Your task to perform on an android device: Go to display settings Image 0: 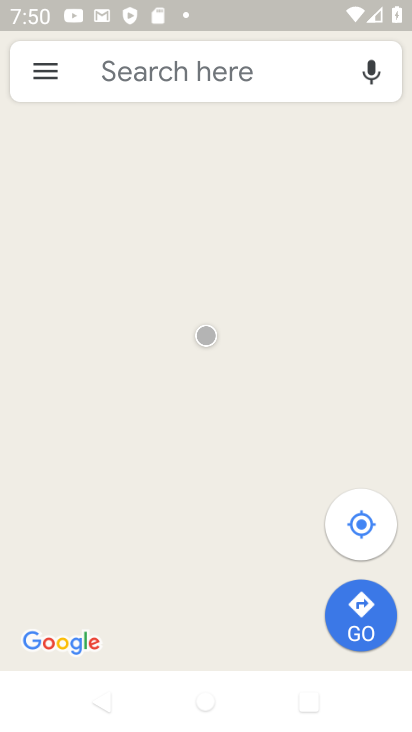
Step 0: press home button
Your task to perform on an android device: Go to display settings Image 1: 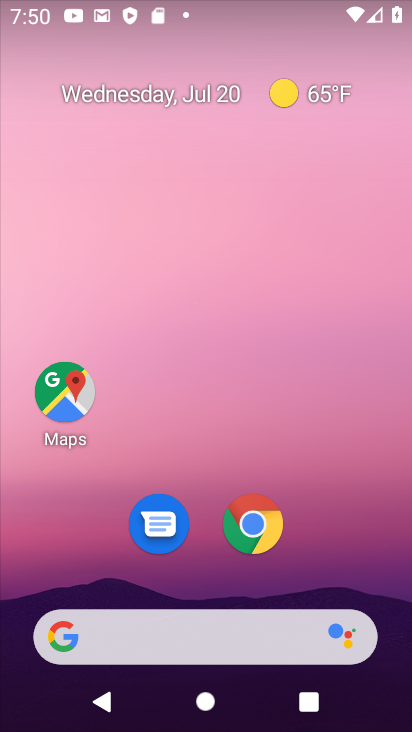
Step 1: drag from (309, 545) to (296, 102)
Your task to perform on an android device: Go to display settings Image 2: 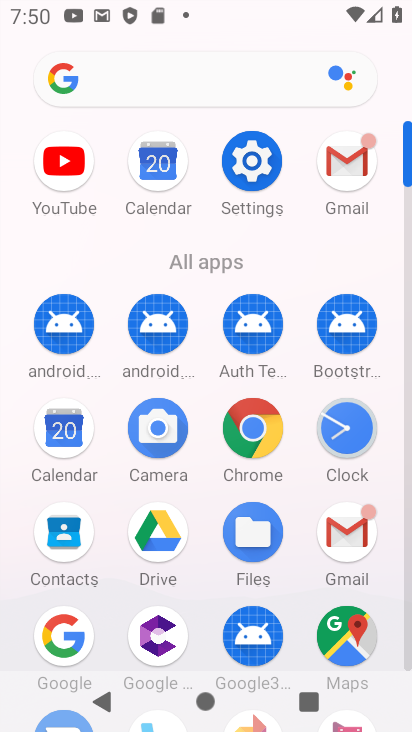
Step 2: click (254, 162)
Your task to perform on an android device: Go to display settings Image 3: 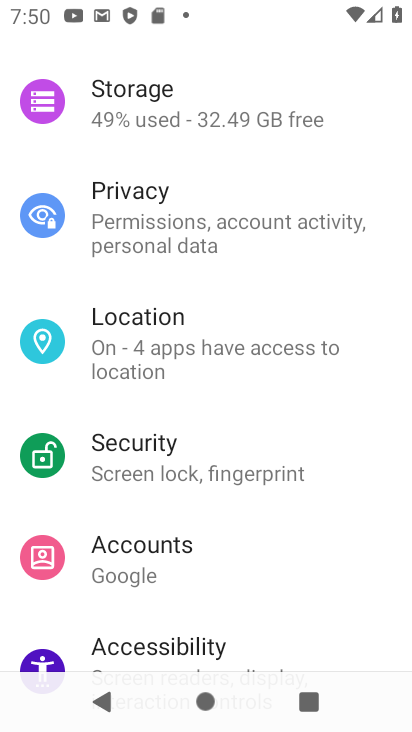
Step 3: drag from (252, 283) to (251, 698)
Your task to perform on an android device: Go to display settings Image 4: 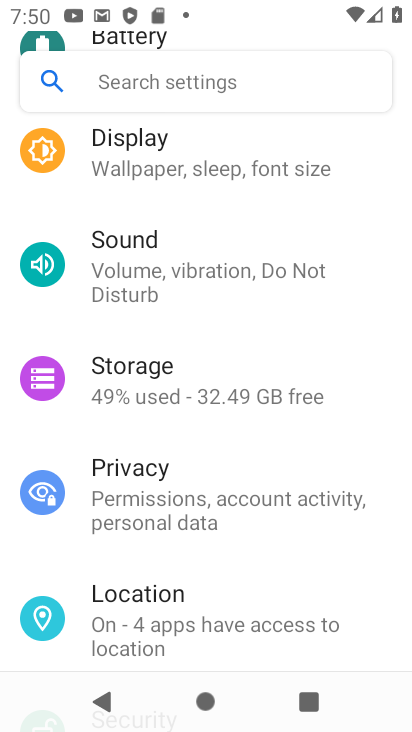
Step 4: click (243, 145)
Your task to perform on an android device: Go to display settings Image 5: 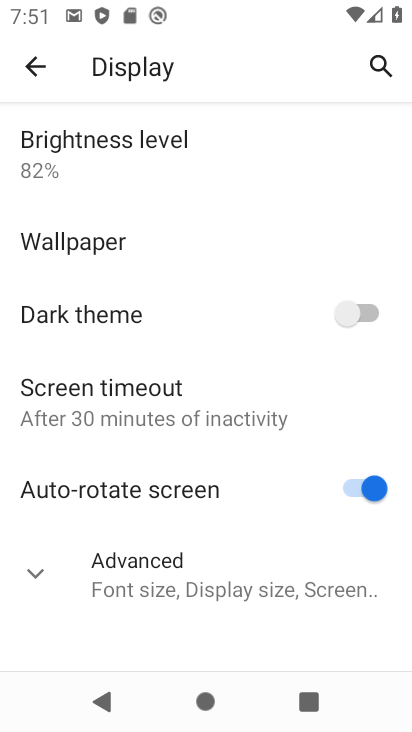
Step 5: task complete